Your task to perform on an android device: Open calendar and show me the fourth week of next month Image 0: 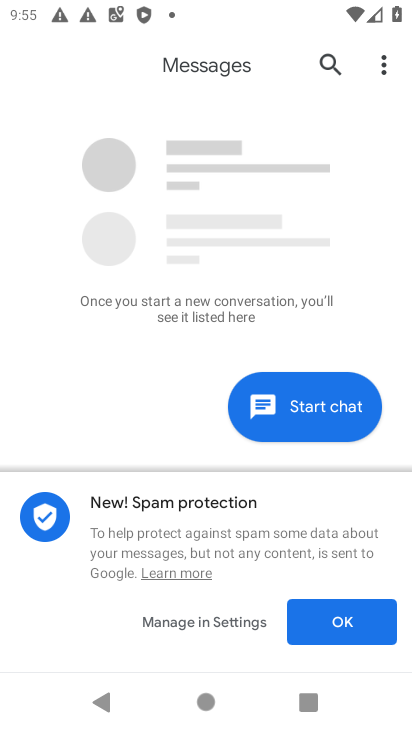
Step 0: press back button
Your task to perform on an android device: Open calendar and show me the fourth week of next month Image 1: 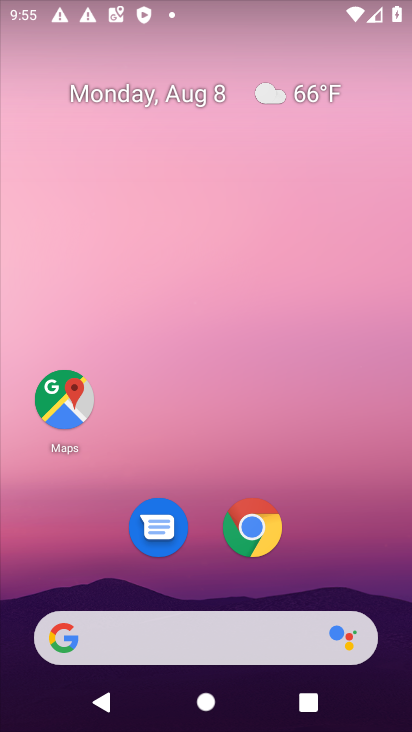
Step 1: drag from (391, 661) to (312, 77)
Your task to perform on an android device: Open calendar and show me the fourth week of next month Image 2: 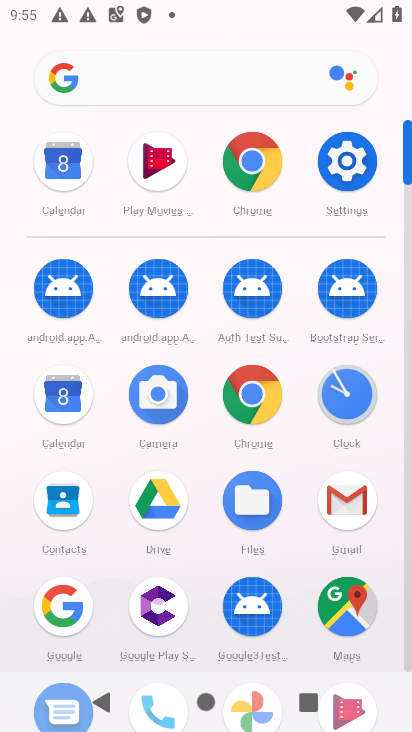
Step 2: click (60, 394)
Your task to perform on an android device: Open calendar and show me the fourth week of next month Image 3: 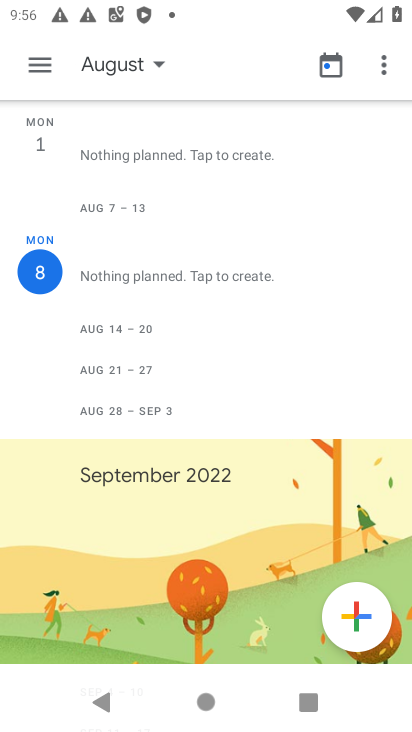
Step 3: click (155, 60)
Your task to perform on an android device: Open calendar and show me the fourth week of next month Image 4: 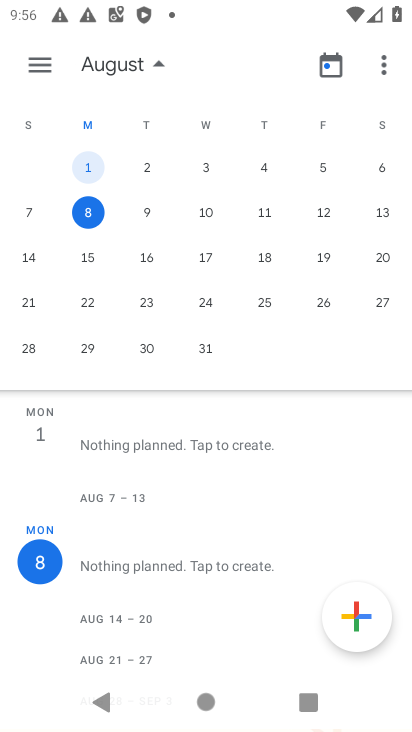
Step 4: drag from (392, 258) to (49, 275)
Your task to perform on an android device: Open calendar and show me the fourth week of next month Image 5: 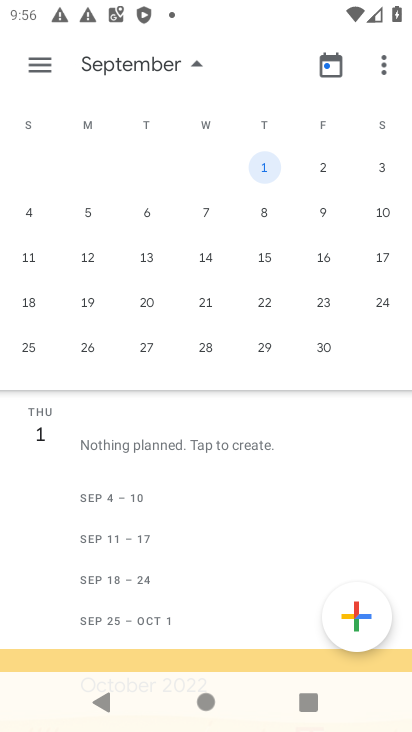
Step 5: click (261, 294)
Your task to perform on an android device: Open calendar and show me the fourth week of next month Image 6: 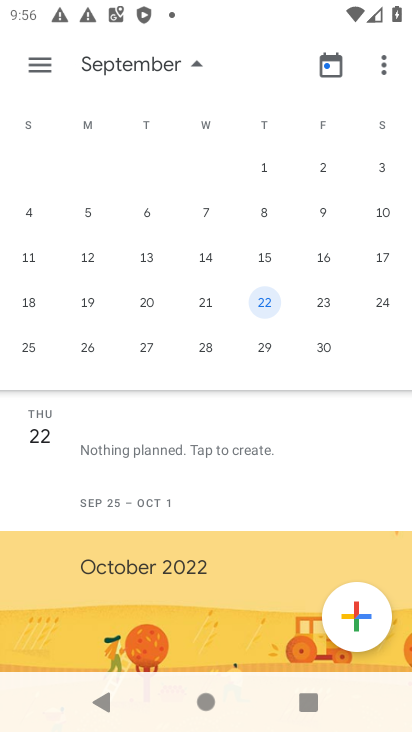
Step 6: click (43, 58)
Your task to perform on an android device: Open calendar and show me the fourth week of next month Image 7: 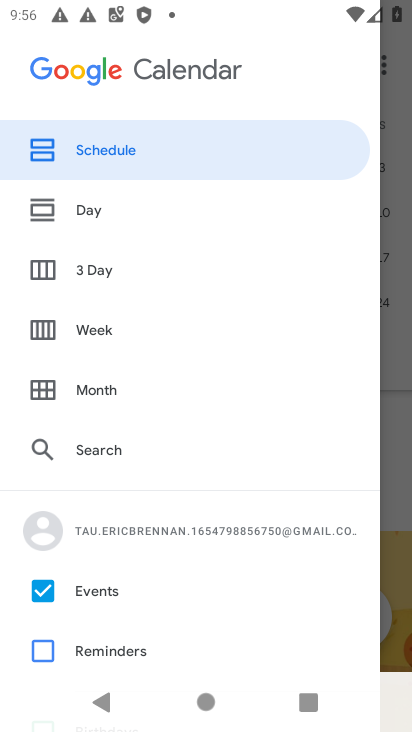
Step 7: click (86, 324)
Your task to perform on an android device: Open calendar and show me the fourth week of next month Image 8: 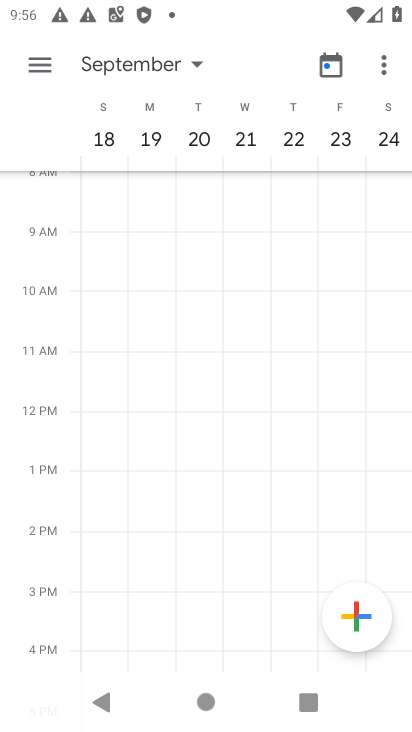
Step 8: task complete